Your task to perform on an android device: open wifi settings Image 0: 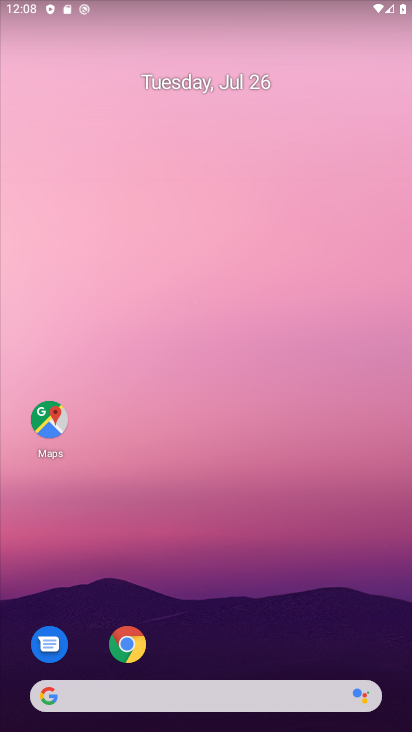
Step 0: drag from (246, 646) to (231, 53)
Your task to perform on an android device: open wifi settings Image 1: 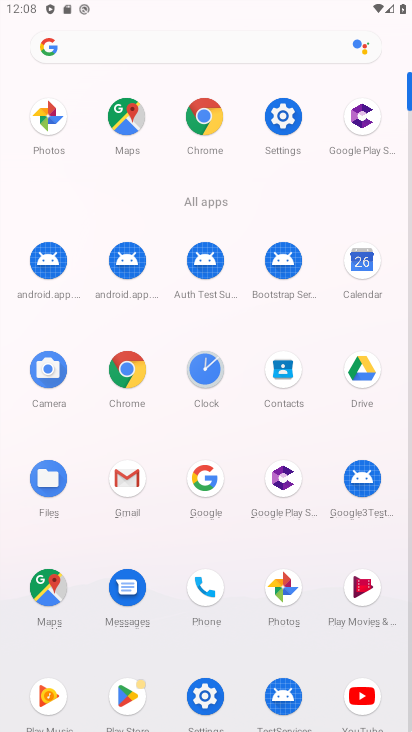
Step 1: click (286, 102)
Your task to perform on an android device: open wifi settings Image 2: 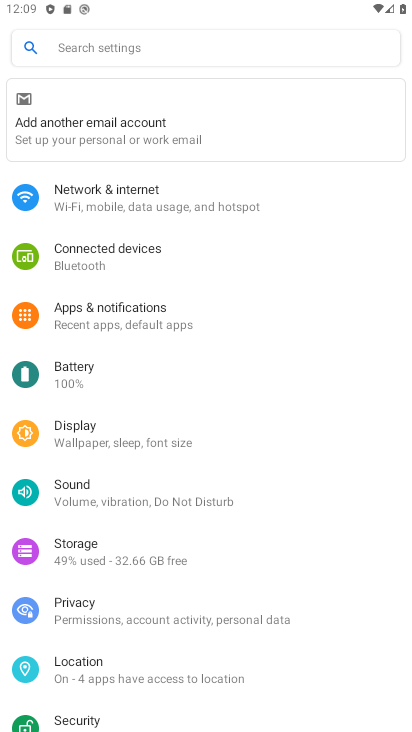
Step 2: click (189, 191)
Your task to perform on an android device: open wifi settings Image 3: 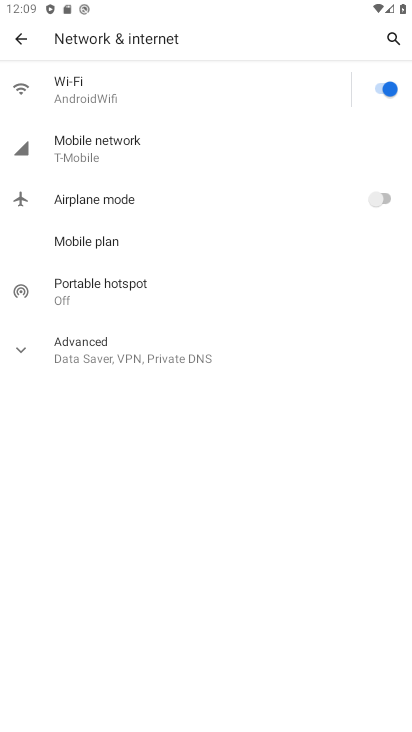
Step 3: click (139, 94)
Your task to perform on an android device: open wifi settings Image 4: 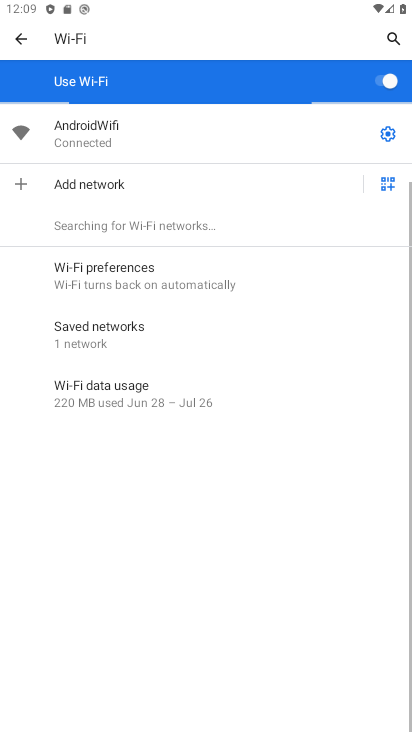
Step 4: task complete